Your task to perform on an android device: manage bookmarks in the chrome app Image 0: 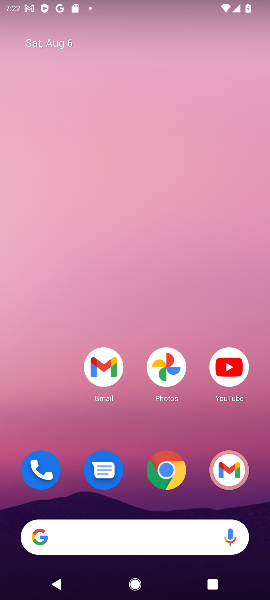
Step 0: drag from (108, 526) to (149, 32)
Your task to perform on an android device: manage bookmarks in the chrome app Image 1: 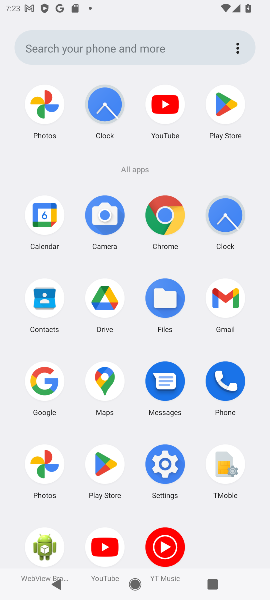
Step 1: click (169, 227)
Your task to perform on an android device: manage bookmarks in the chrome app Image 2: 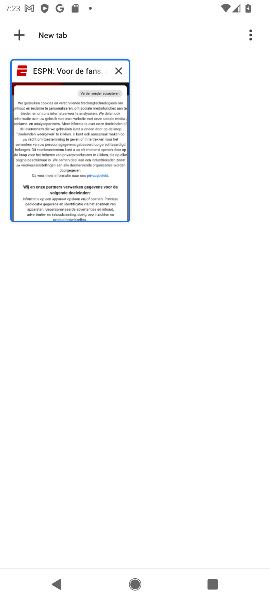
Step 2: click (104, 169)
Your task to perform on an android device: manage bookmarks in the chrome app Image 3: 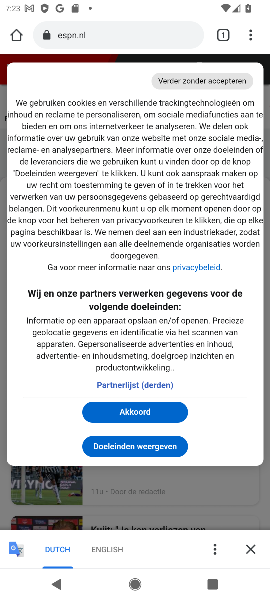
Step 3: click (250, 40)
Your task to perform on an android device: manage bookmarks in the chrome app Image 4: 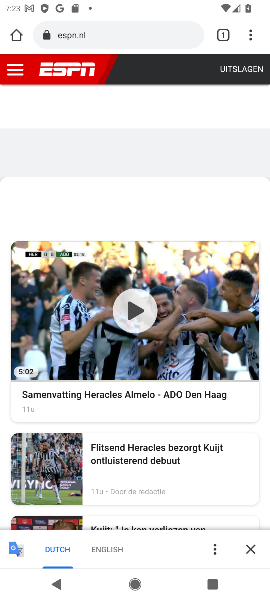
Step 4: click (248, 34)
Your task to perform on an android device: manage bookmarks in the chrome app Image 5: 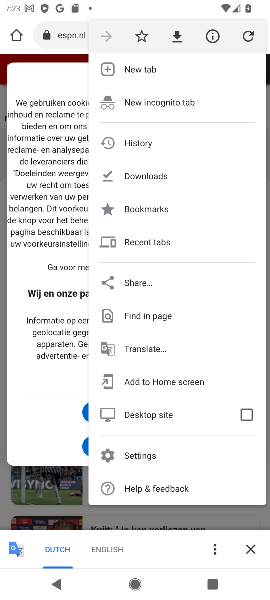
Step 5: click (170, 211)
Your task to perform on an android device: manage bookmarks in the chrome app Image 6: 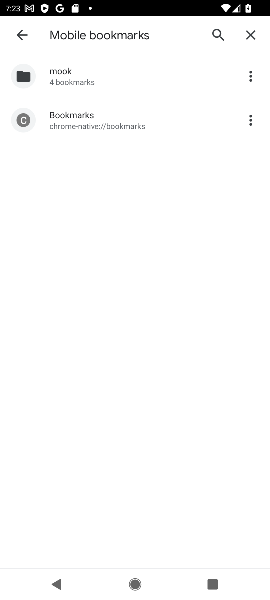
Step 6: task complete